Your task to perform on an android device: open app "Firefox Browser" (install if not already installed) Image 0: 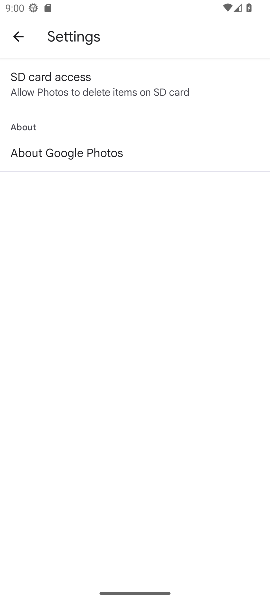
Step 0: drag from (185, 424) to (179, 68)
Your task to perform on an android device: open app "Firefox Browser" (install if not already installed) Image 1: 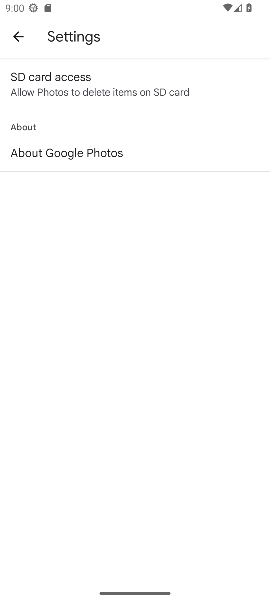
Step 1: drag from (148, 166) to (223, 547)
Your task to perform on an android device: open app "Firefox Browser" (install if not already installed) Image 2: 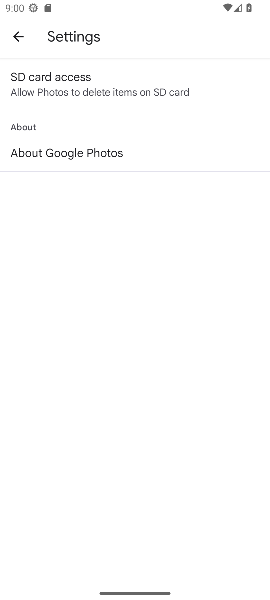
Step 2: drag from (130, 158) to (267, 437)
Your task to perform on an android device: open app "Firefox Browser" (install if not already installed) Image 3: 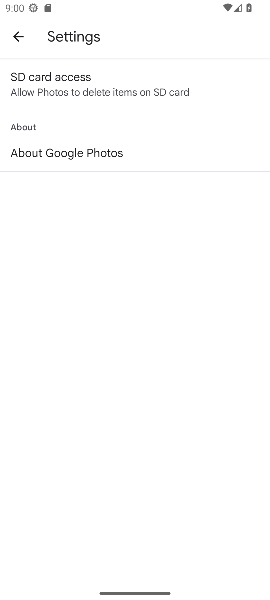
Step 3: drag from (159, 103) to (214, 542)
Your task to perform on an android device: open app "Firefox Browser" (install if not already installed) Image 4: 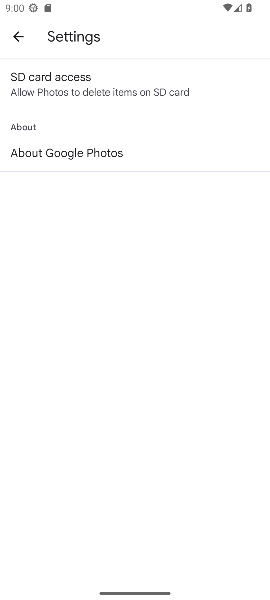
Step 4: drag from (103, 114) to (213, 443)
Your task to perform on an android device: open app "Firefox Browser" (install if not already installed) Image 5: 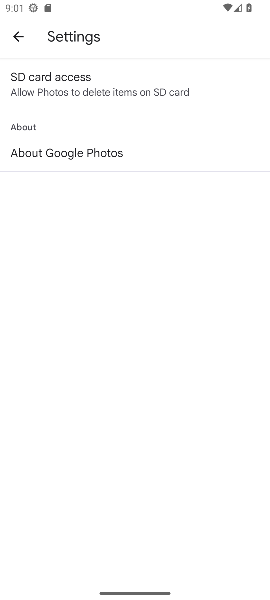
Step 5: drag from (52, 139) to (267, 289)
Your task to perform on an android device: open app "Firefox Browser" (install if not already installed) Image 6: 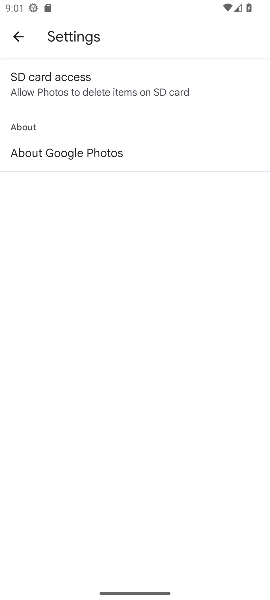
Step 6: drag from (39, 121) to (248, 507)
Your task to perform on an android device: open app "Firefox Browser" (install if not already installed) Image 7: 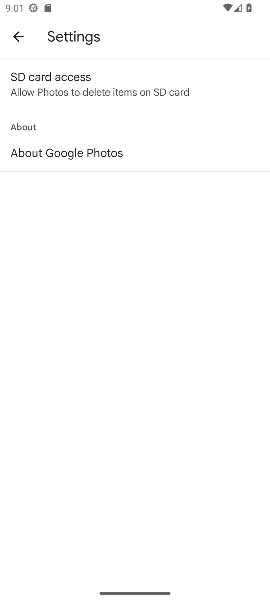
Step 7: drag from (172, 492) to (193, 127)
Your task to perform on an android device: open app "Firefox Browser" (install if not already installed) Image 8: 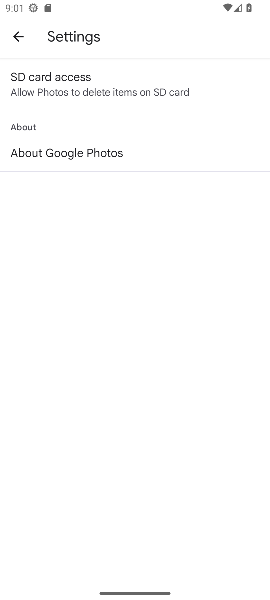
Step 8: drag from (135, 95) to (205, 518)
Your task to perform on an android device: open app "Firefox Browser" (install if not already installed) Image 9: 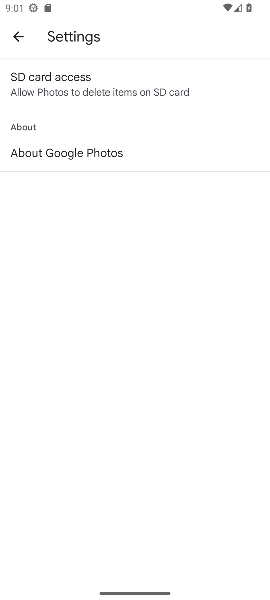
Step 9: drag from (56, 92) to (255, 517)
Your task to perform on an android device: open app "Firefox Browser" (install if not already installed) Image 10: 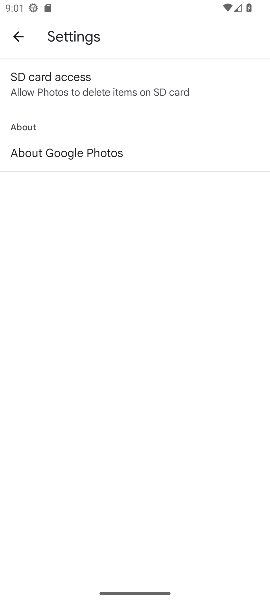
Step 10: press home button
Your task to perform on an android device: open app "Firefox Browser" (install if not already installed) Image 11: 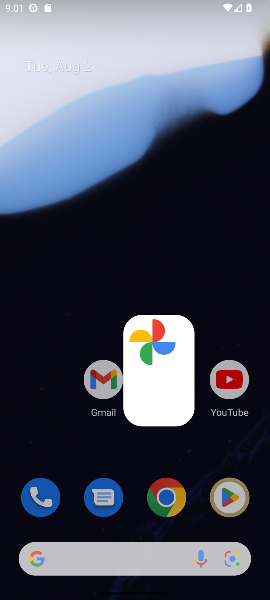
Step 11: drag from (128, 507) to (173, 83)
Your task to perform on an android device: open app "Firefox Browser" (install if not already installed) Image 12: 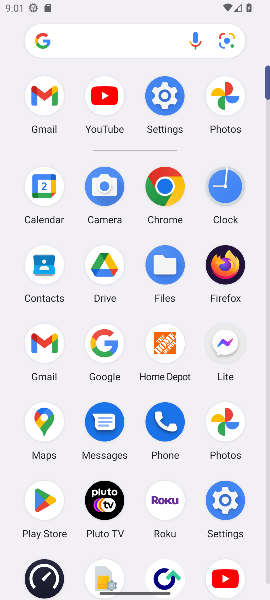
Step 12: click (43, 503)
Your task to perform on an android device: open app "Firefox Browser" (install if not already installed) Image 13: 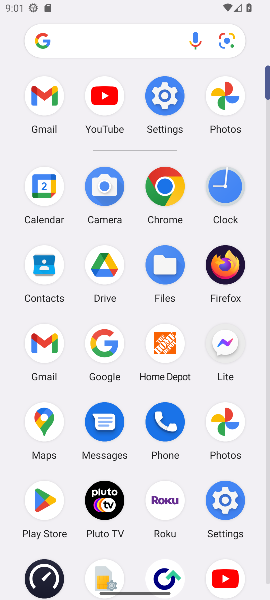
Step 13: click (43, 503)
Your task to perform on an android device: open app "Firefox Browser" (install if not already installed) Image 14: 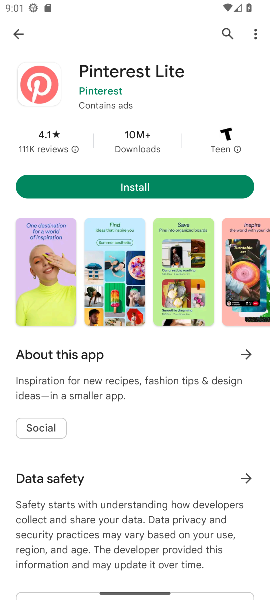
Step 14: drag from (168, 94) to (189, 480)
Your task to perform on an android device: open app "Firefox Browser" (install if not already installed) Image 15: 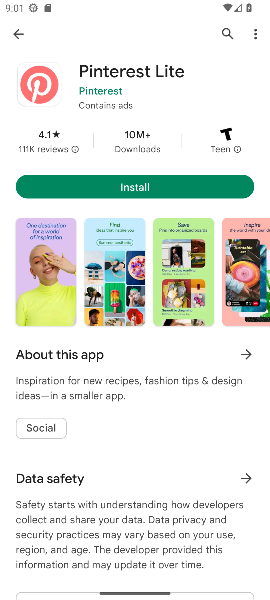
Step 15: click (226, 33)
Your task to perform on an android device: open app "Firefox Browser" (install if not already installed) Image 16: 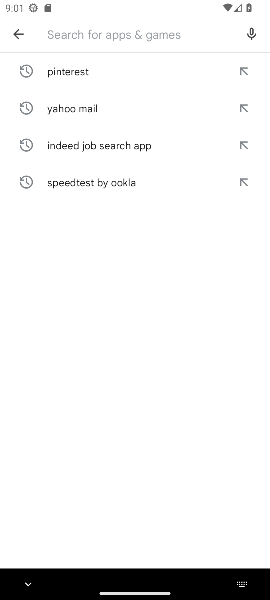
Step 16: click (57, 38)
Your task to perform on an android device: open app "Firefox Browser" (install if not already installed) Image 17: 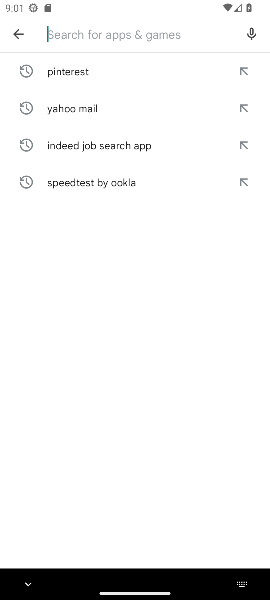
Step 17: type "Firefox Browser"
Your task to perform on an android device: open app "Firefox Browser" (install if not already installed) Image 18: 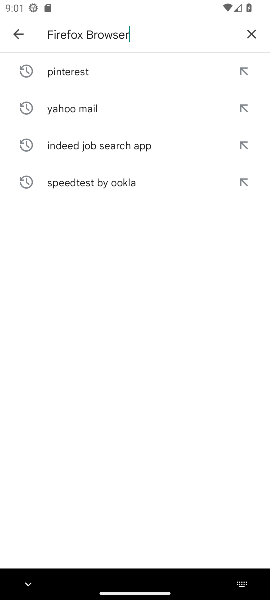
Step 18: type ""
Your task to perform on an android device: open app "Firefox Browser" (install if not already installed) Image 19: 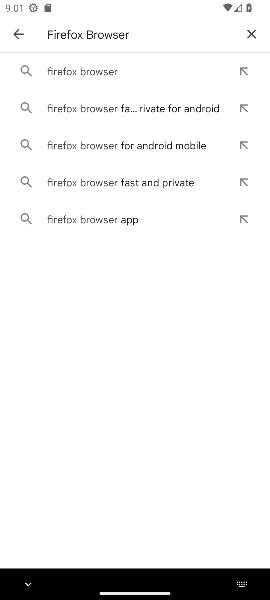
Step 19: click (68, 73)
Your task to perform on an android device: open app "Firefox Browser" (install if not already installed) Image 20: 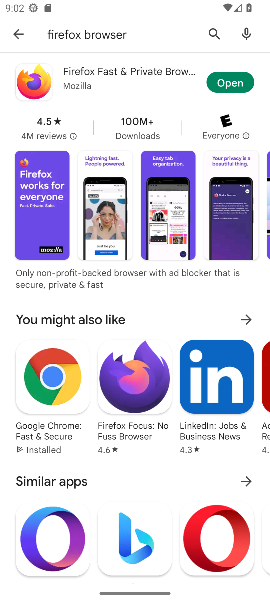
Step 20: click (87, 71)
Your task to perform on an android device: open app "Firefox Browser" (install if not already installed) Image 21: 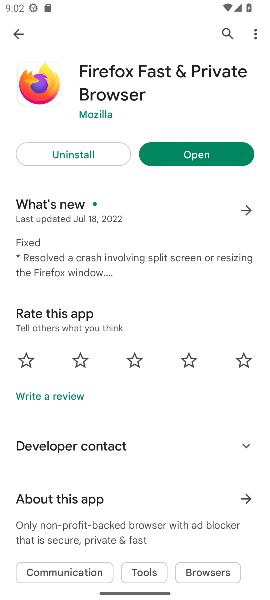
Step 21: drag from (139, 110) to (153, 379)
Your task to perform on an android device: open app "Firefox Browser" (install if not already installed) Image 22: 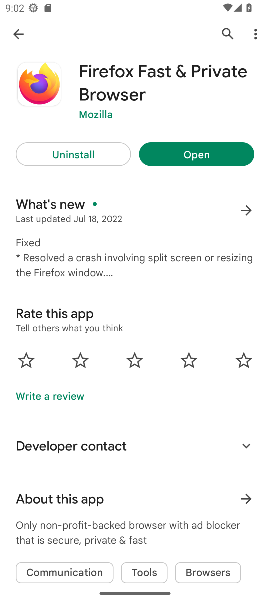
Step 22: drag from (123, 97) to (131, 311)
Your task to perform on an android device: open app "Firefox Browser" (install if not already installed) Image 23: 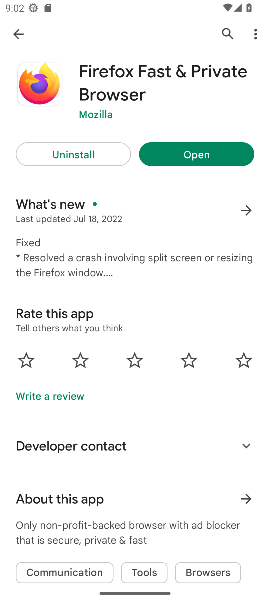
Step 23: click (184, 159)
Your task to perform on an android device: open app "Firefox Browser" (install if not already installed) Image 24: 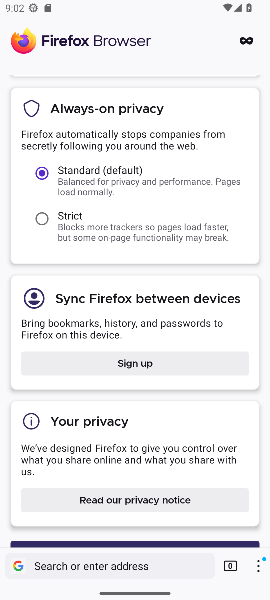
Step 24: task complete